Your task to perform on an android device: Search for the new nike air max 270 on Nike.com Image 0: 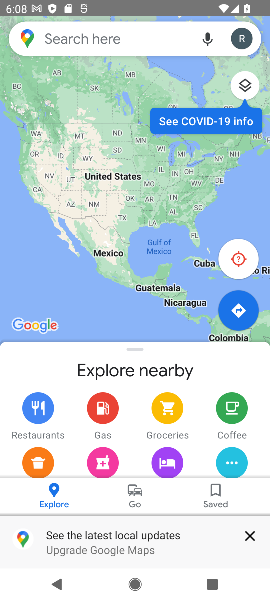
Step 0: press home button
Your task to perform on an android device: Search for the new nike air max 270 on Nike.com Image 1: 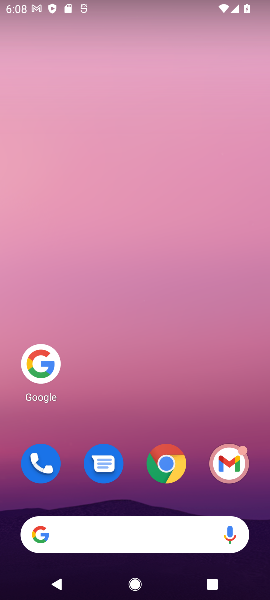
Step 1: click (19, 345)
Your task to perform on an android device: Search for the new nike air max 270 on Nike.com Image 2: 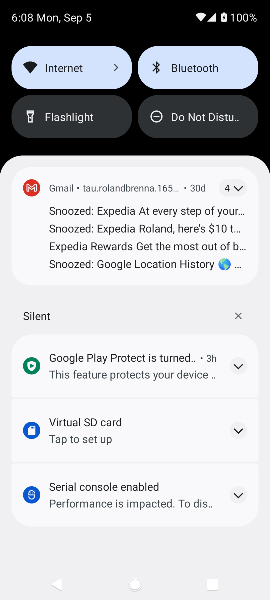
Step 2: press home button
Your task to perform on an android device: Search for the new nike air max 270 on Nike.com Image 3: 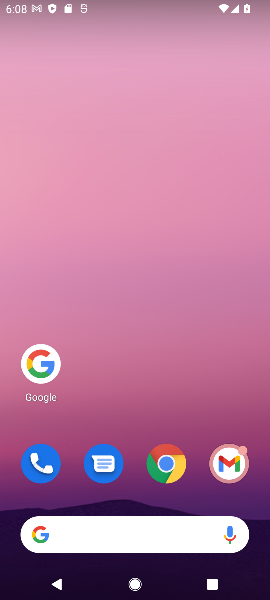
Step 3: click (46, 370)
Your task to perform on an android device: Search for the new nike air max 270 on Nike.com Image 4: 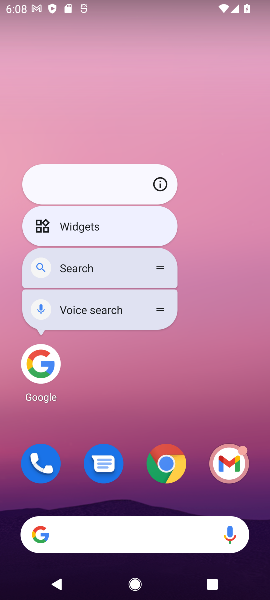
Step 4: click (39, 359)
Your task to perform on an android device: Search for the new nike air max 270 on Nike.com Image 5: 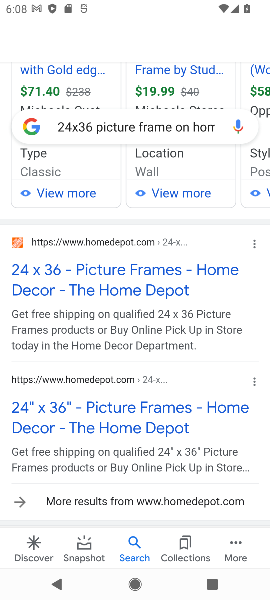
Step 5: click (126, 125)
Your task to perform on an android device: Search for the new nike air max 270 on Nike.com Image 6: 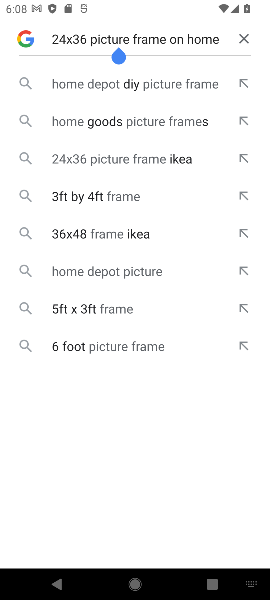
Step 6: click (245, 30)
Your task to perform on an android device: Search for the new nike air max 270 on Nike.com Image 7: 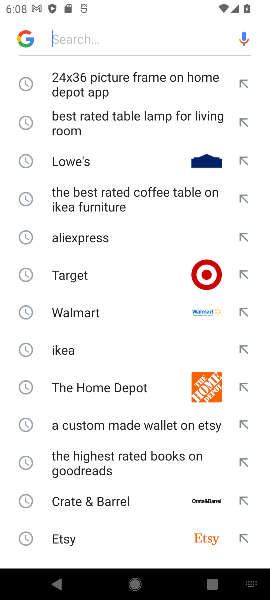
Step 7: click (127, 39)
Your task to perform on an android device: Search for the new nike air max 270 on Nike.com Image 8: 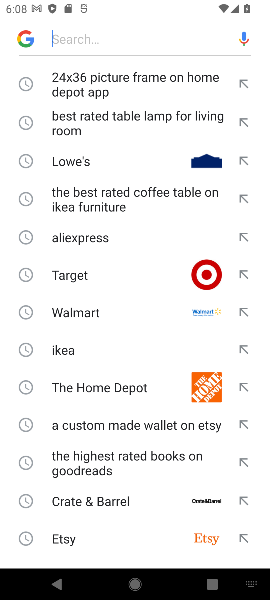
Step 8: type " new nike air max 270 on Nike.com "
Your task to perform on an android device: Search for the new nike air max 270 on Nike.com Image 9: 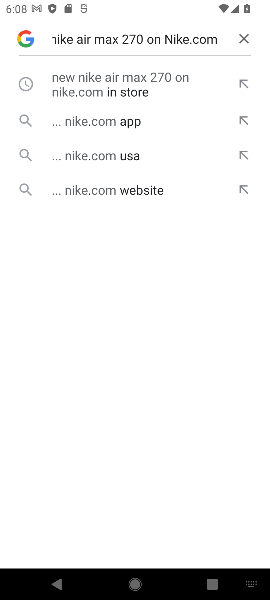
Step 9: click (100, 77)
Your task to perform on an android device: Search for the new nike air max 270 on Nike.com Image 10: 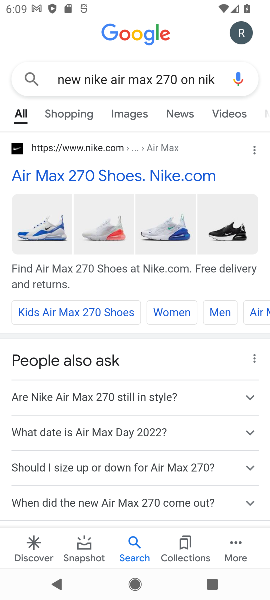
Step 10: click (143, 175)
Your task to perform on an android device: Search for the new nike air max 270 on Nike.com Image 11: 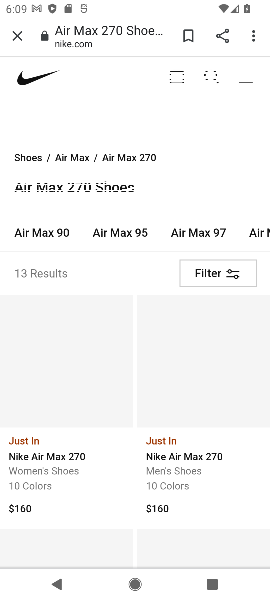
Step 11: task complete